Your task to perform on an android device: Go to CNN.com Image 0: 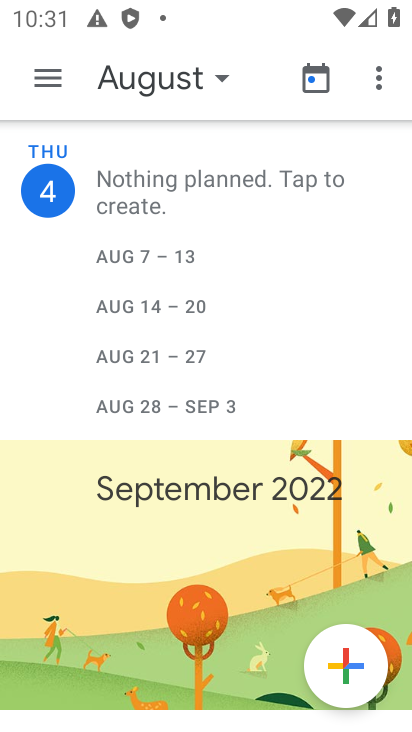
Step 0: press home button
Your task to perform on an android device: Go to CNN.com Image 1: 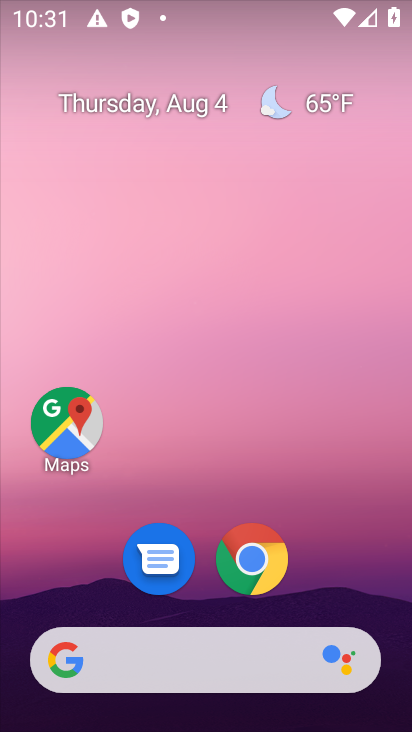
Step 1: press home button
Your task to perform on an android device: Go to CNN.com Image 2: 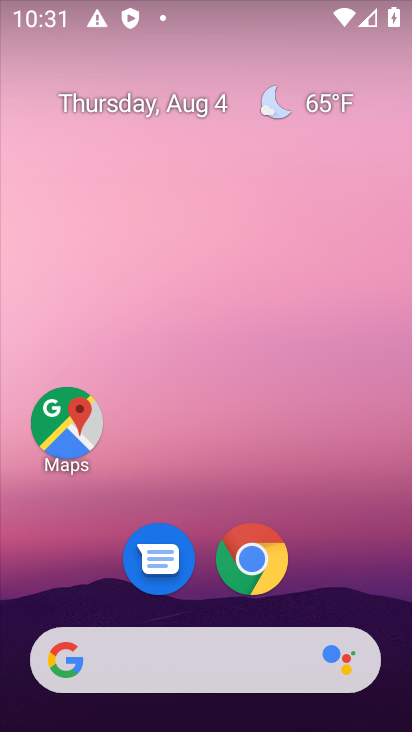
Step 2: click (238, 554)
Your task to perform on an android device: Go to CNN.com Image 3: 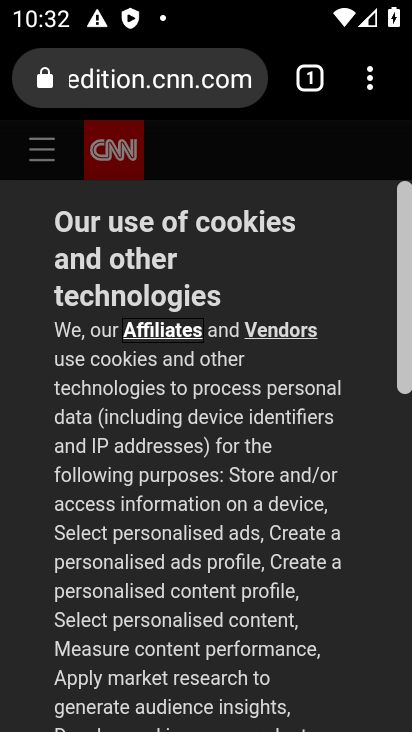
Step 3: task complete